Your task to perform on an android device: turn on airplane mode Image 0: 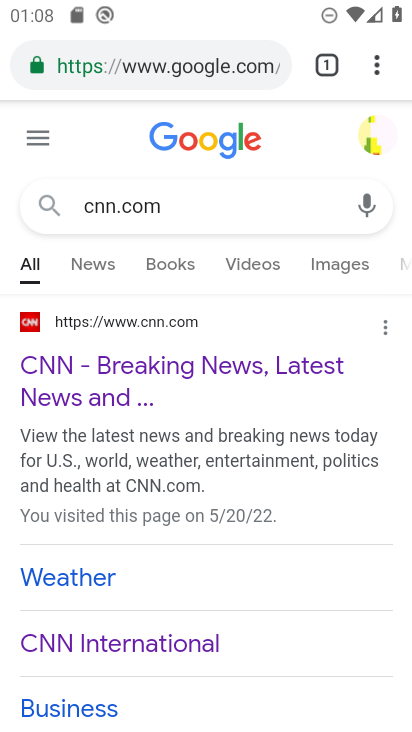
Step 0: press home button
Your task to perform on an android device: turn on airplane mode Image 1: 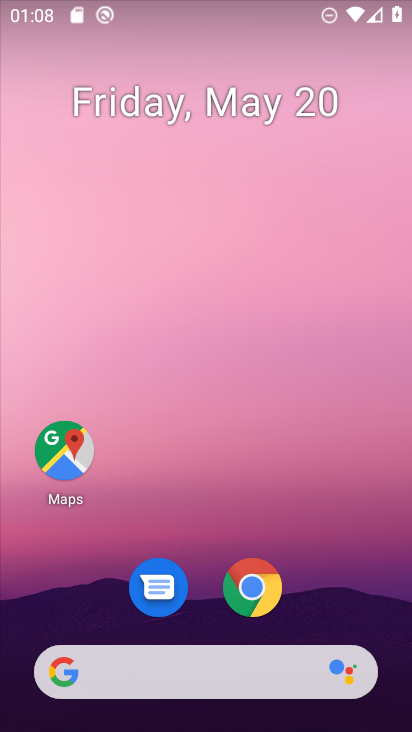
Step 1: drag from (362, 557) to (370, 96)
Your task to perform on an android device: turn on airplane mode Image 2: 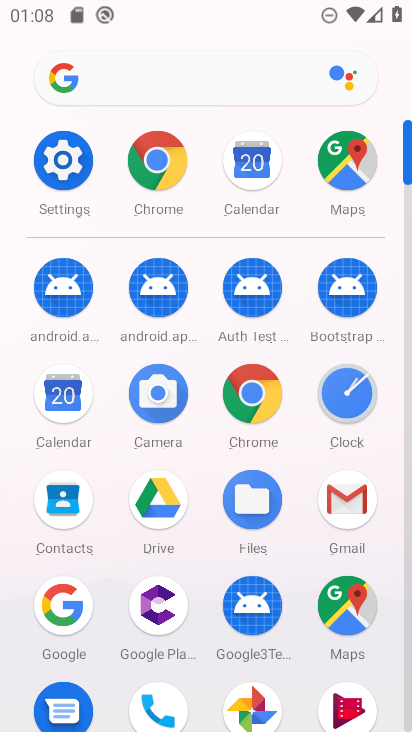
Step 2: click (30, 157)
Your task to perform on an android device: turn on airplane mode Image 3: 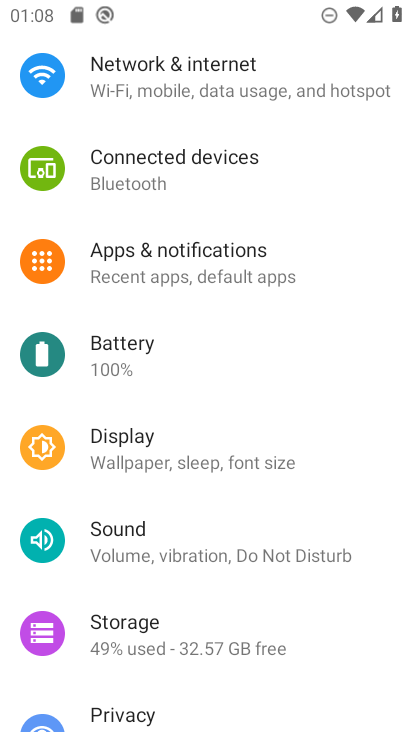
Step 3: drag from (382, 257) to (347, 384)
Your task to perform on an android device: turn on airplane mode Image 4: 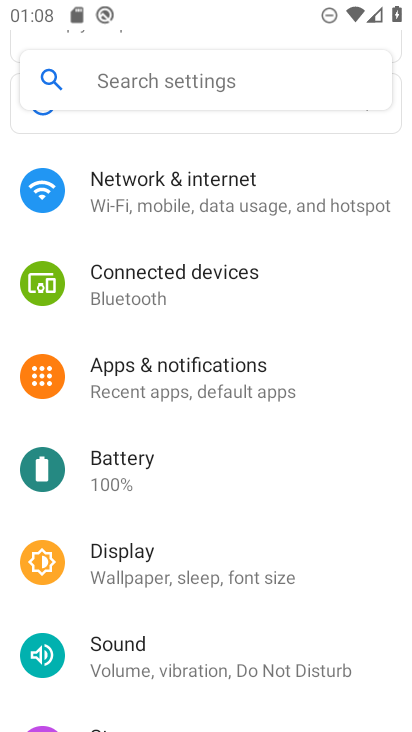
Step 4: click (261, 195)
Your task to perform on an android device: turn on airplane mode Image 5: 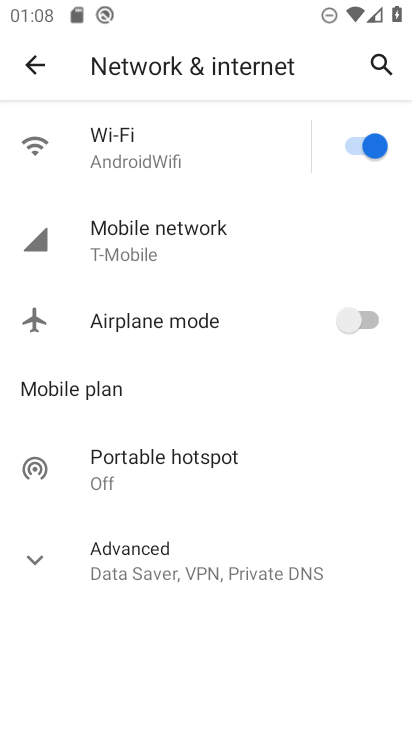
Step 5: click (335, 321)
Your task to perform on an android device: turn on airplane mode Image 6: 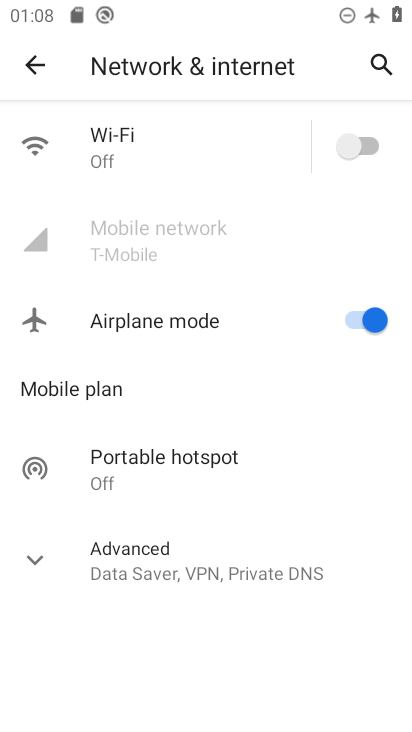
Step 6: task complete